Your task to perform on an android device: uninstall "Booking.com: Hotels and more" Image 0: 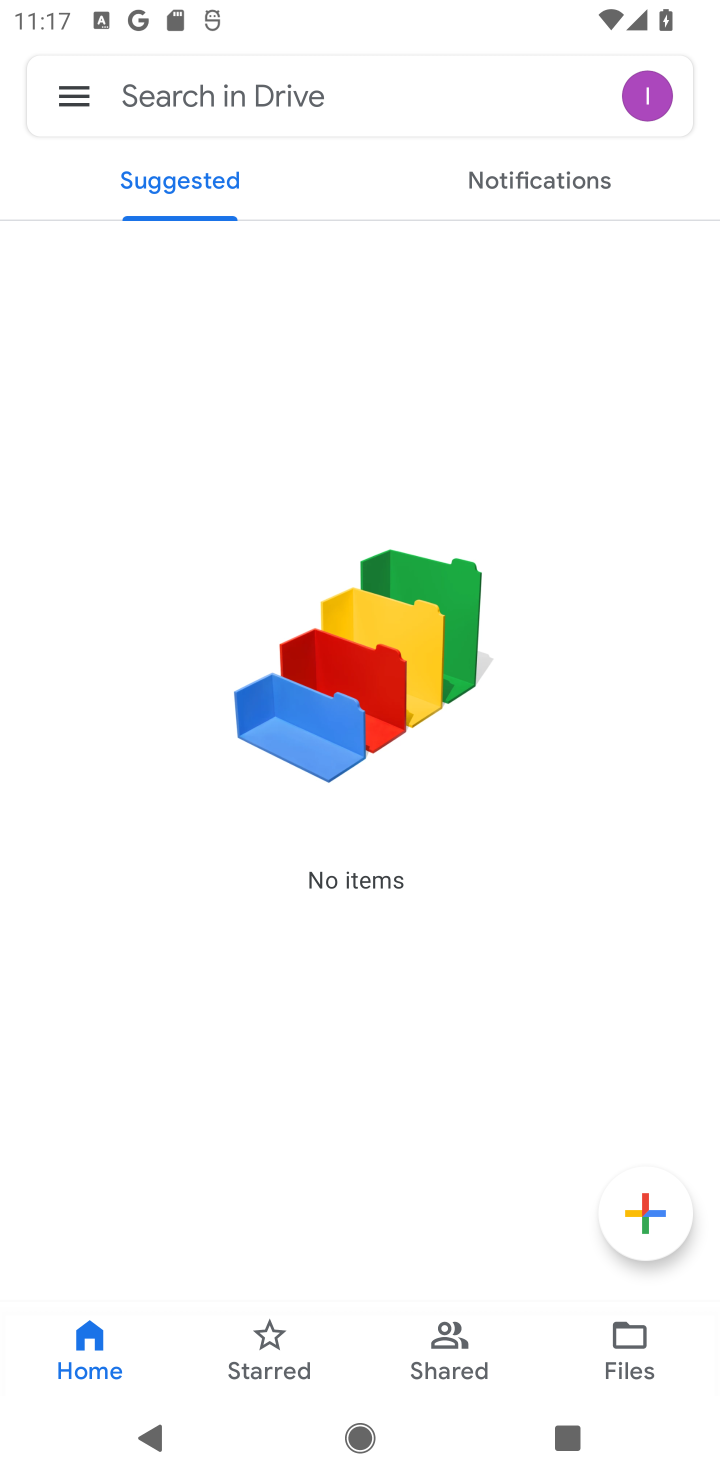
Step 0: press back button
Your task to perform on an android device: uninstall "Booking.com: Hotels and more" Image 1: 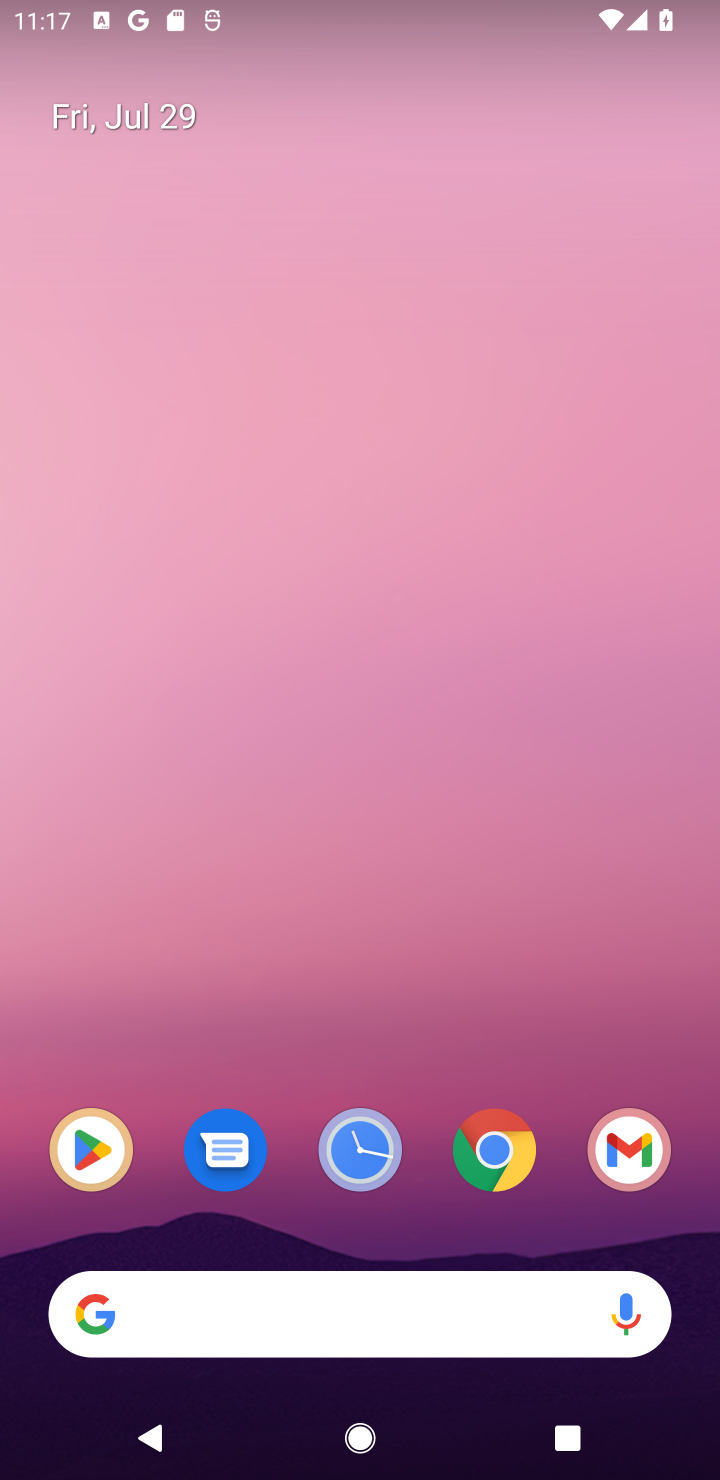
Step 1: click (98, 1138)
Your task to perform on an android device: uninstall "Booking.com: Hotels and more" Image 2: 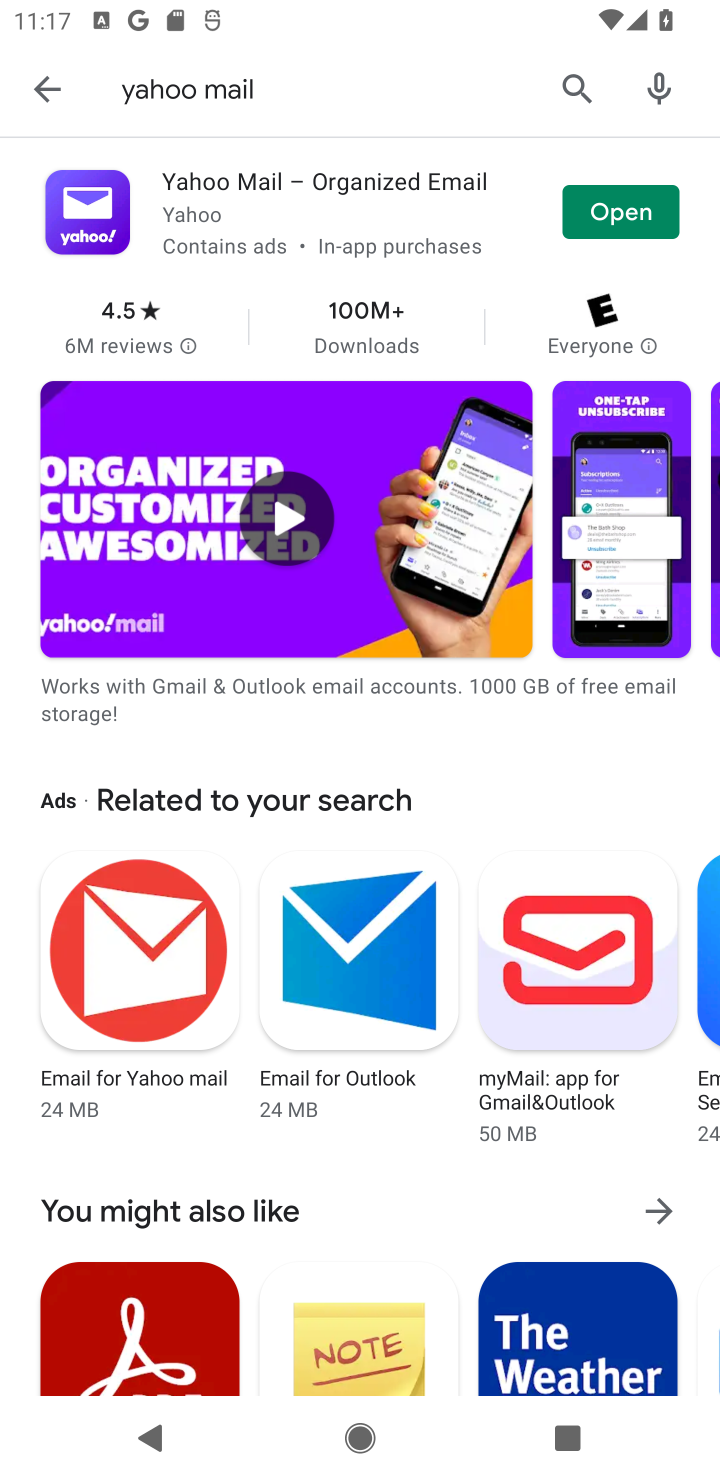
Step 2: click (568, 75)
Your task to perform on an android device: uninstall "Booking.com: Hotels and more" Image 3: 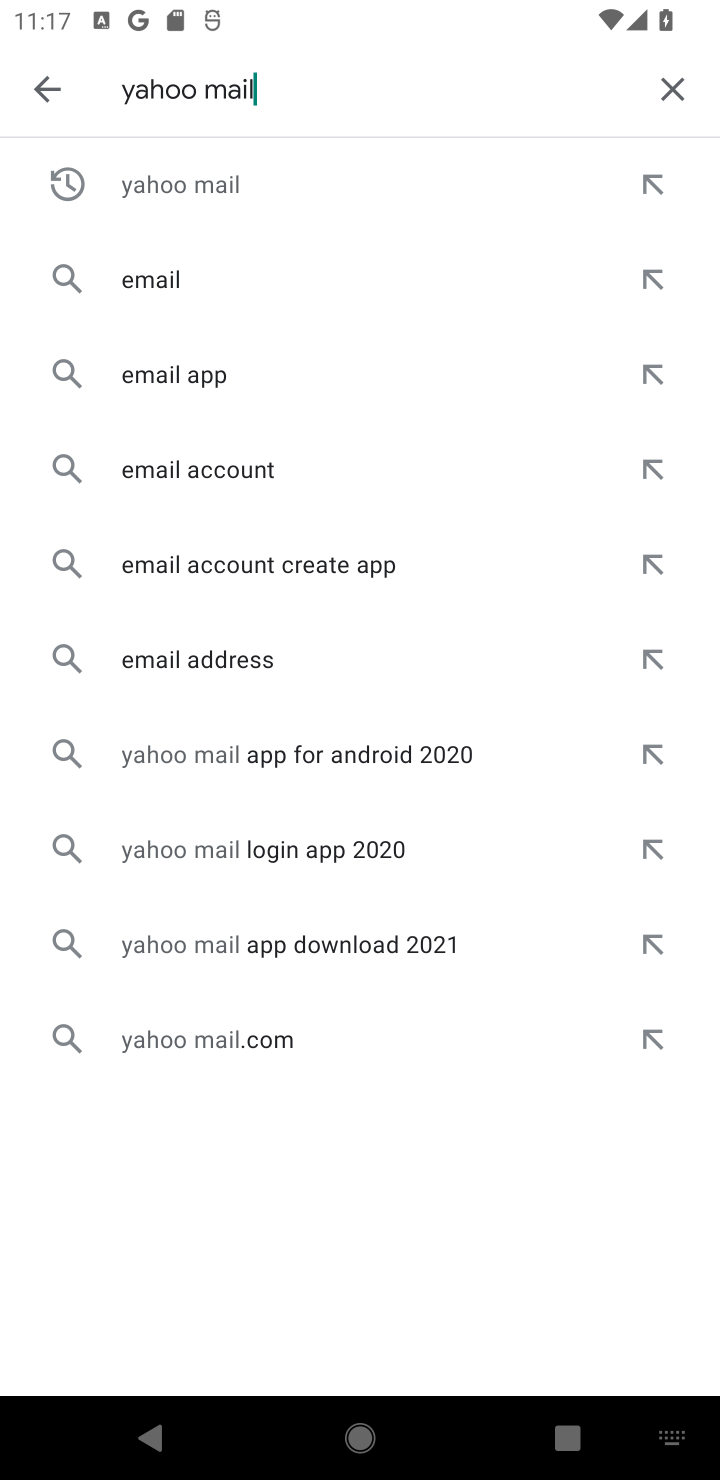
Step 3: click (681, 85)
Your task to perform on an android device: uninstall "Booking.com: Hotels and more" Image 4: 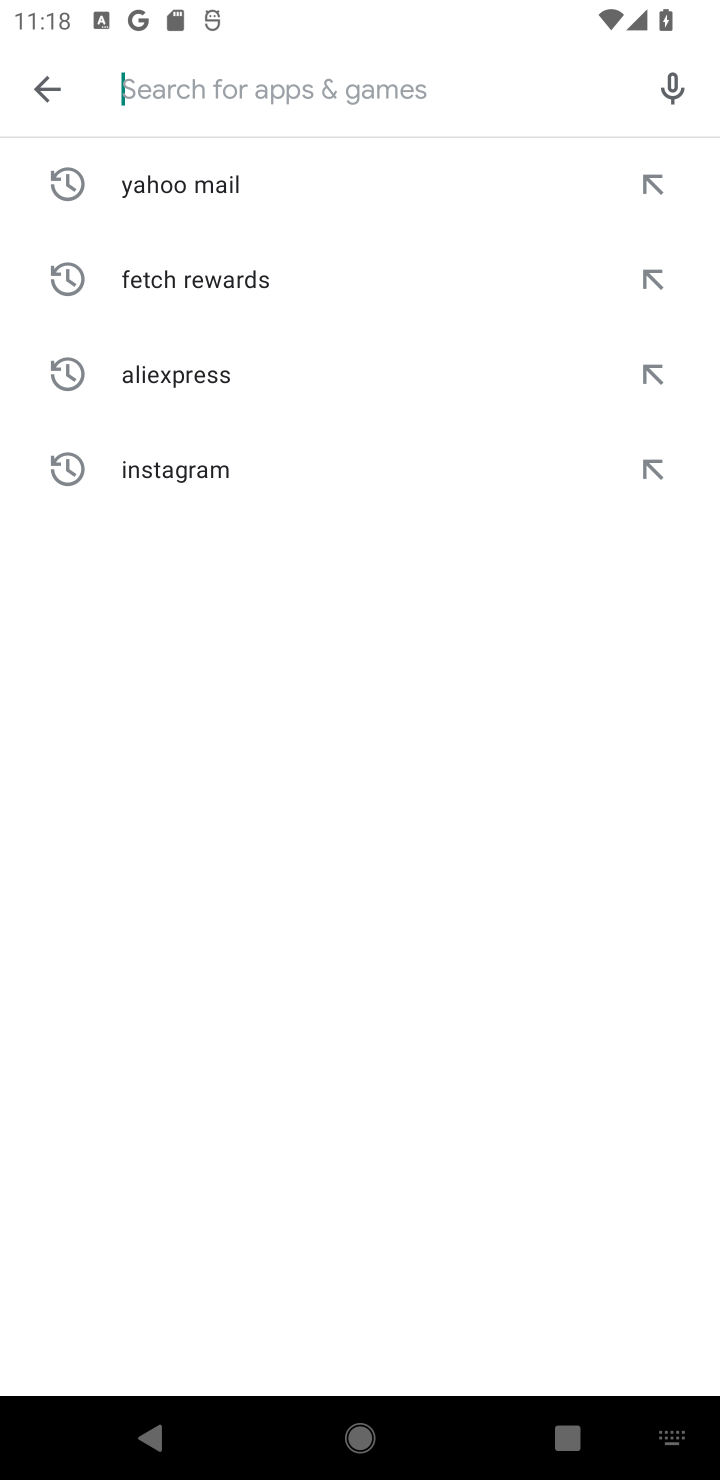
Step 4: click (365, 85)
Your task to perform on an android device: uninstall "Booking.com: Hotels and more" Image 5: 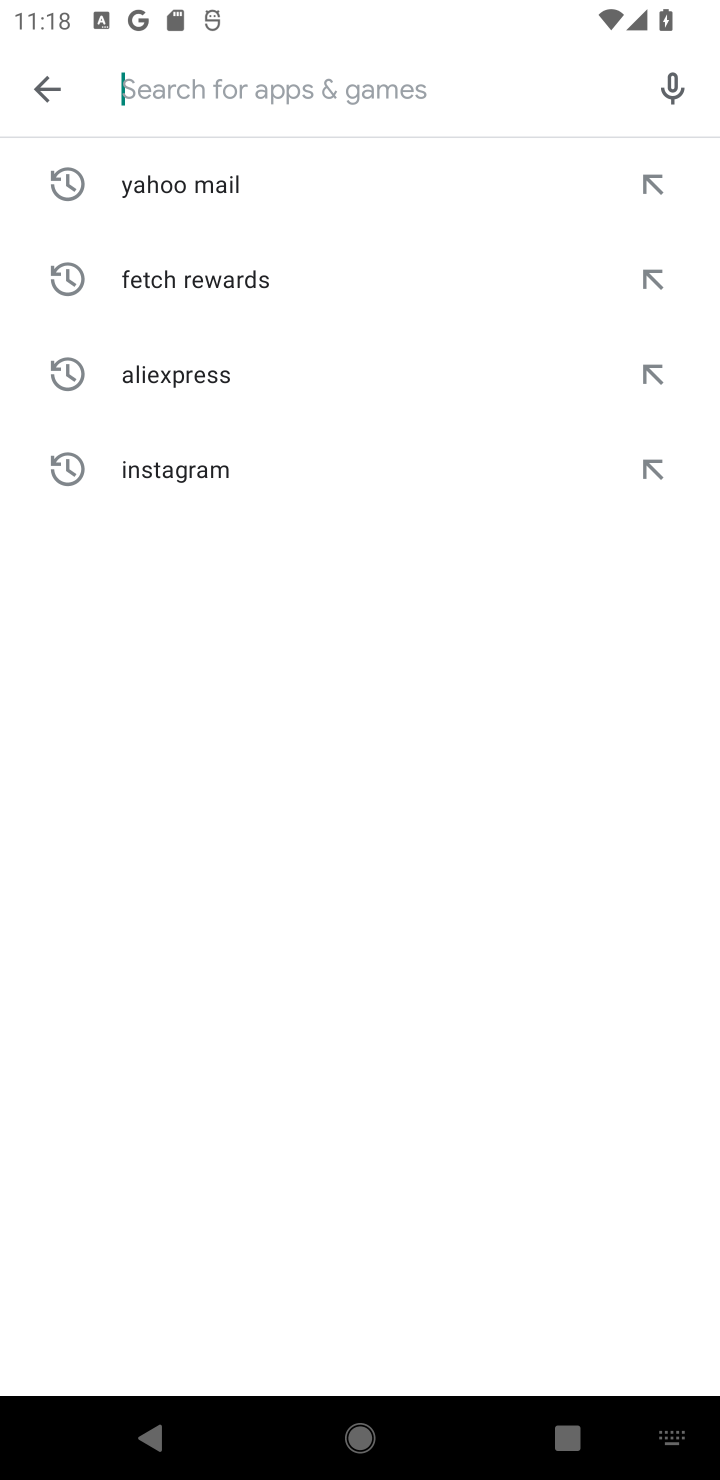
Step 5: click (250, 78)
Your task to perform on an android device: uninstall "Booking.com: Hotels and more" Image 6: 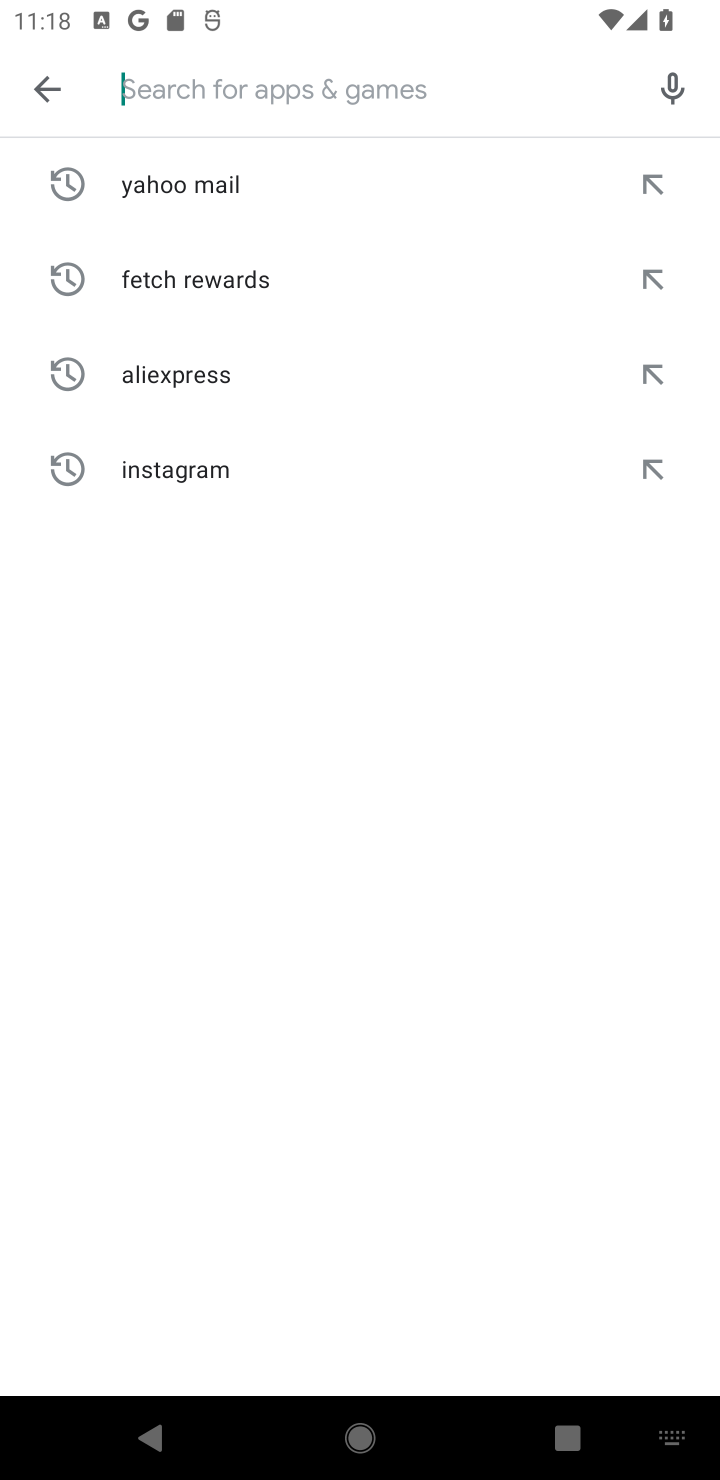
Step 6: type "booking.com"
Your task to perform on an android device: uninstall "Booking.com: Hotels and more" Image 7: 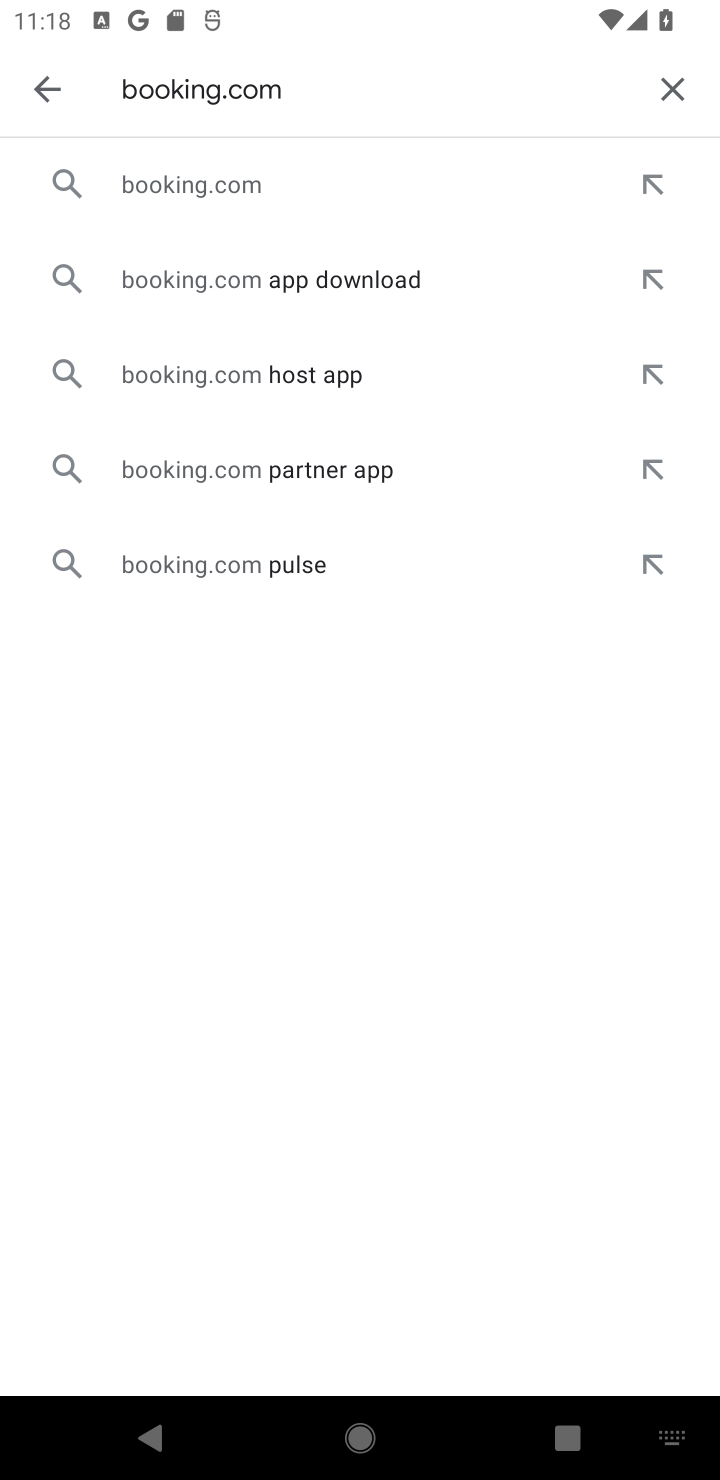
Step 7: click (253, 170)
Your task to perform on an android device: uninstall "Booking.com: Hotels and more" Image 8: 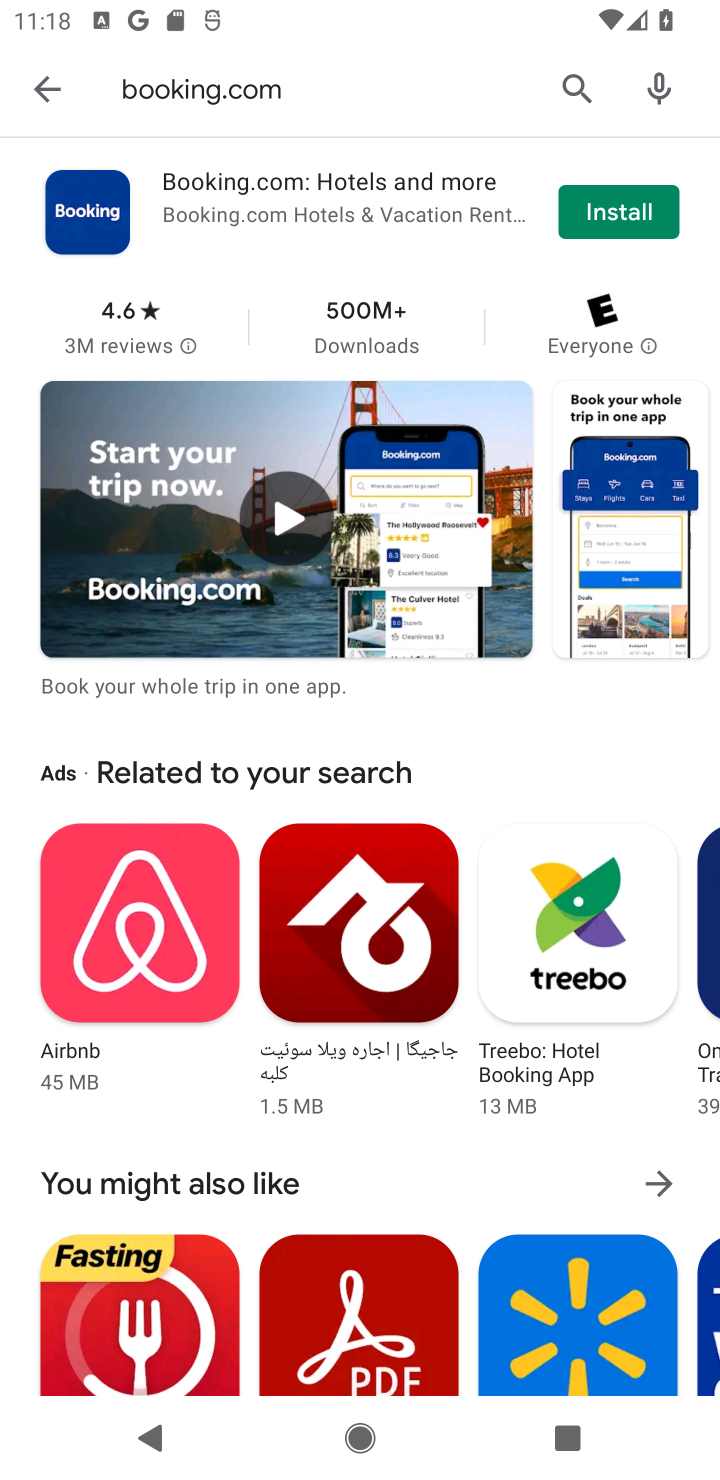
Step 8: task complete